Your task to perform on an android device: add a contact in the contacts app Image 0: 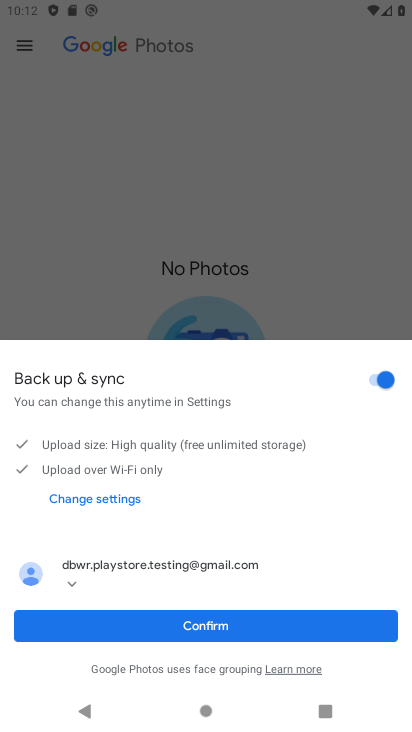
Step 0: press home button
Your task to perform on an android device: add a contact in the contacts app Image 1: 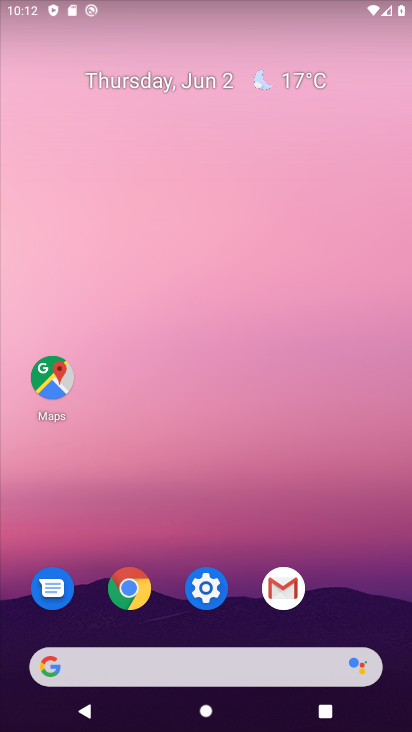
Step 1: drag from (235, 682) to (313, 210)
Your task to perform on an android device: add a contact in the contacts app Image 2: 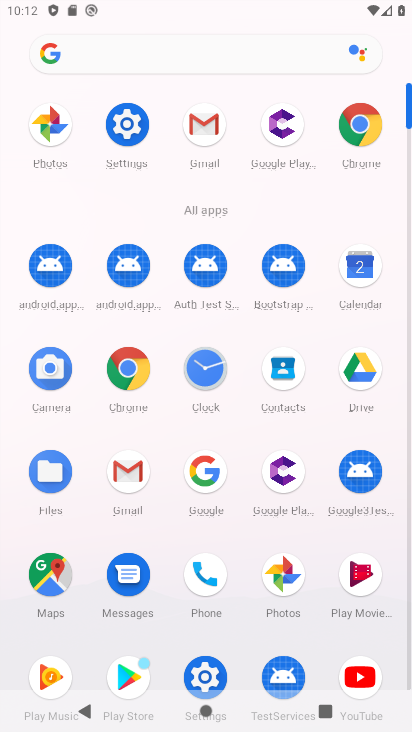
Step 2: click (212, 654)
Your task to perform on an android device: add a contact in the contacts app Image 3: 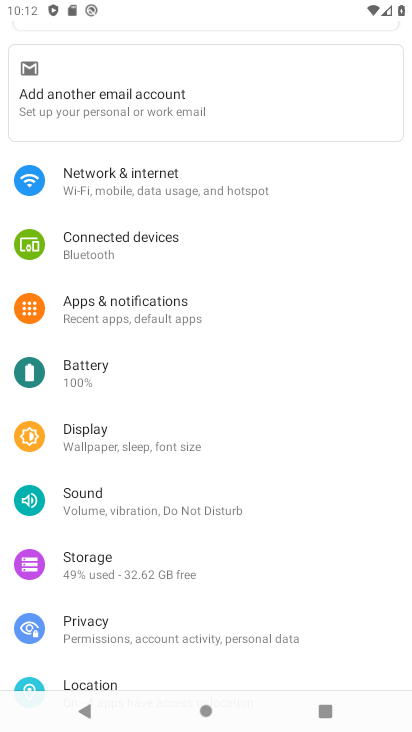
Step 3: press home button
Your task to perform on an android device: add a contact in the contacts app Image 4: 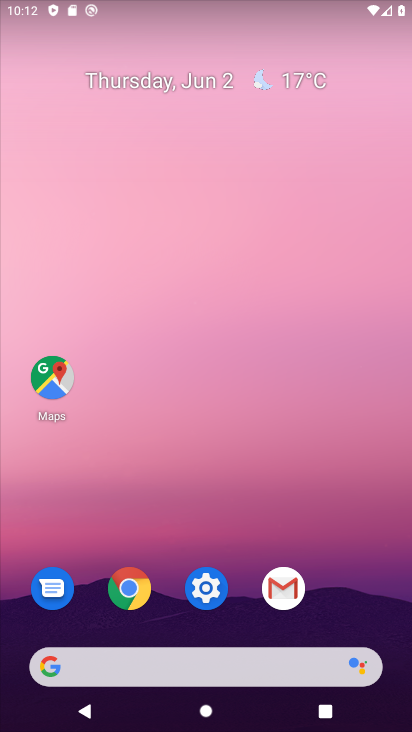
Step 4: drag from (149, 689) to (370, 0)
Your task to perform on an android device: add a contact in the contacts app Image 5: 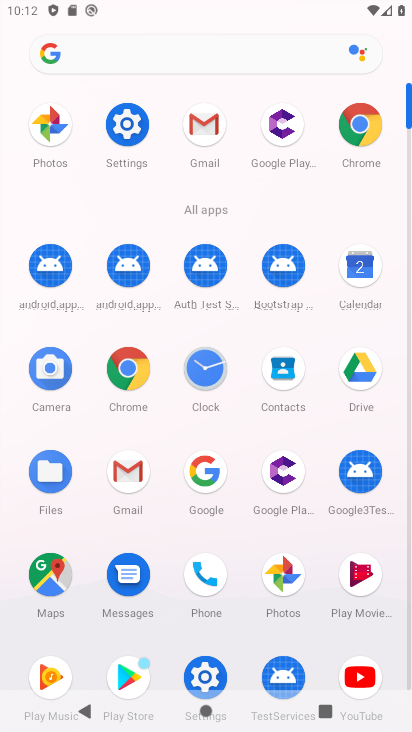
Step 5: click (200, 571)
Your task to perform on an android device: add a contact in the contacts app Image 6: 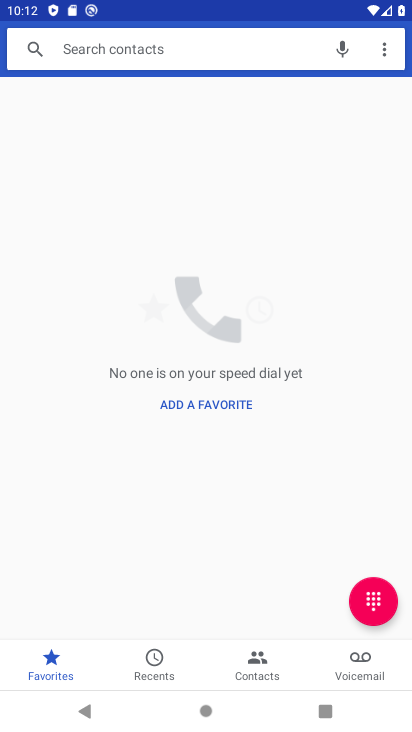
Step 6: click (251, 657)
Your task to perform on an android device: add a contact in the contacts app Image 7: 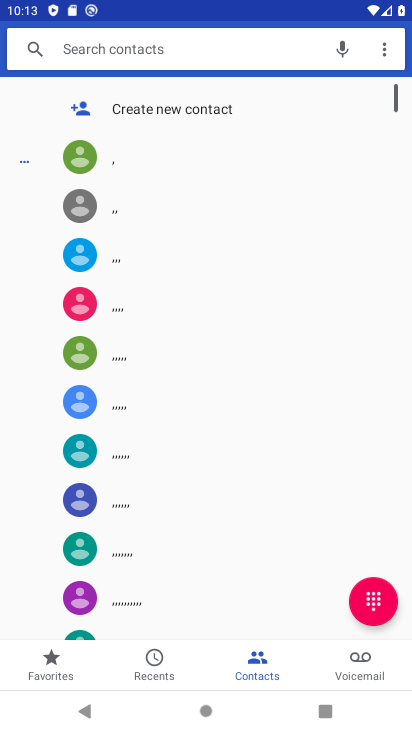
Step 7: click (175, 118)
Your task to perform on an android device: add a contact in the contacts app Image 8: 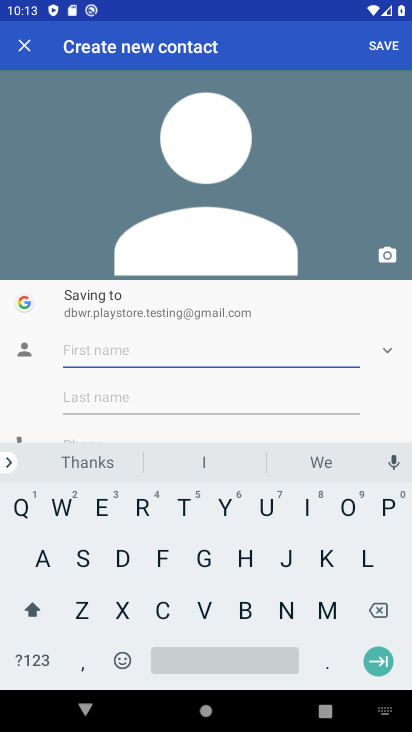
Step 8: drag from (213, 537) to (72, 608)
Your task to perform on an android device: add a contact in the contacts app Image 9: 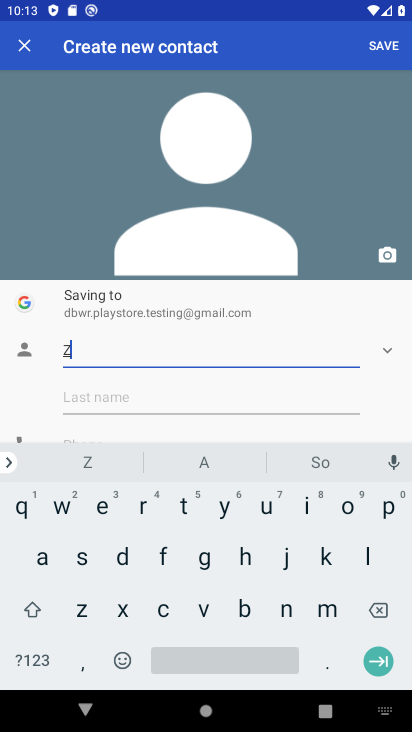
Step 9: click (55, 569)
Your task to perform on an android device: add a contact in the contacts app Image 10: 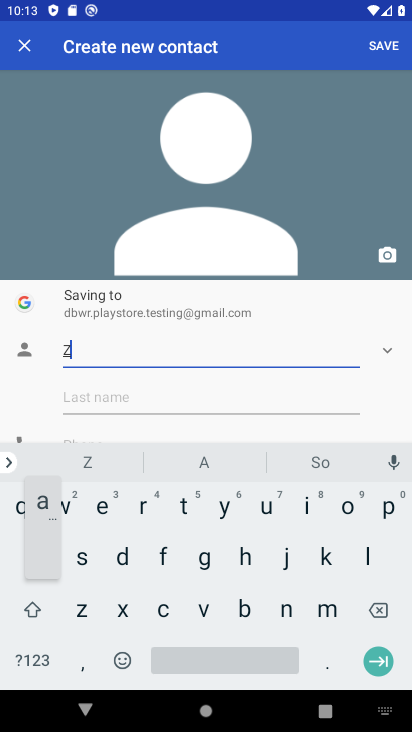
Step 10: click (76, 591)
Your task to perform on an android device: add a contact in the contacts app Image 11: 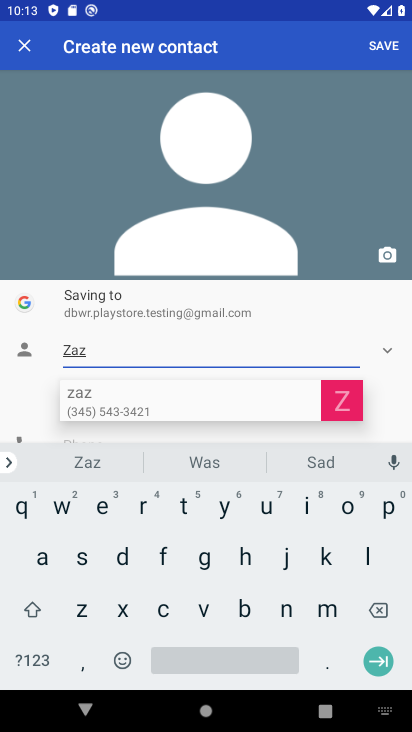
Step 11: drag from (189, 397) to (217, 219)
Your task to perform on an android device: add a contact in the contacts app Image 12: 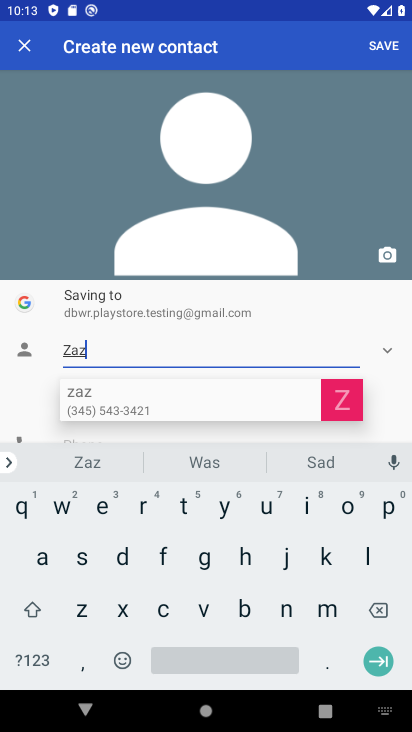
Step 12: click (201, 531)
Your task to perform on an android device: add a contact in the contacts app Image 13: 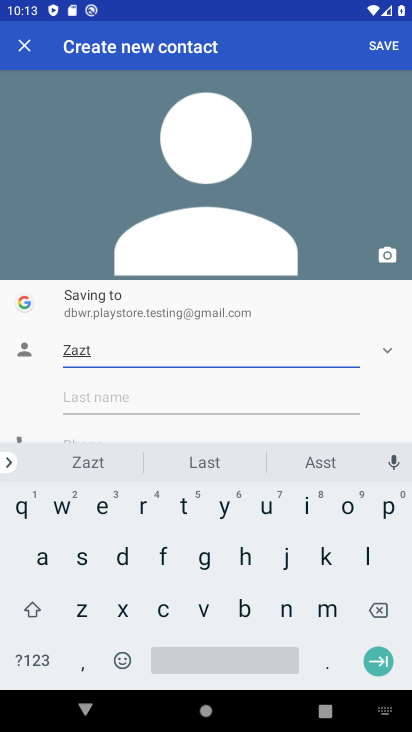
Step 13: click (156, 442)
Your task to perform on an android device: add a contact in the contacts app Image 14: 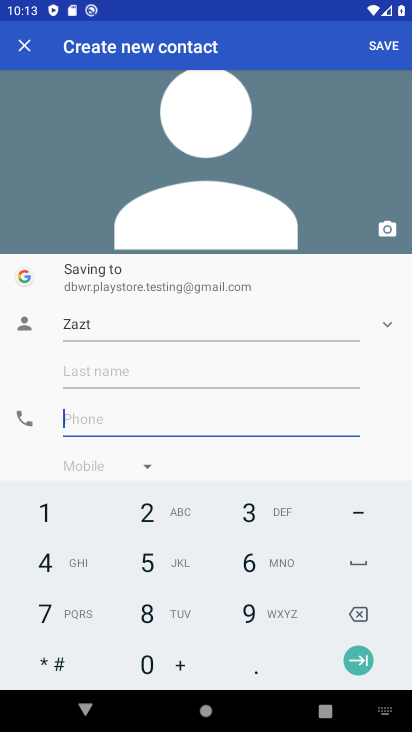
Step 14: click (148, 558)
Your task to perform on an android device: add a contact in the contacts app Image 15: 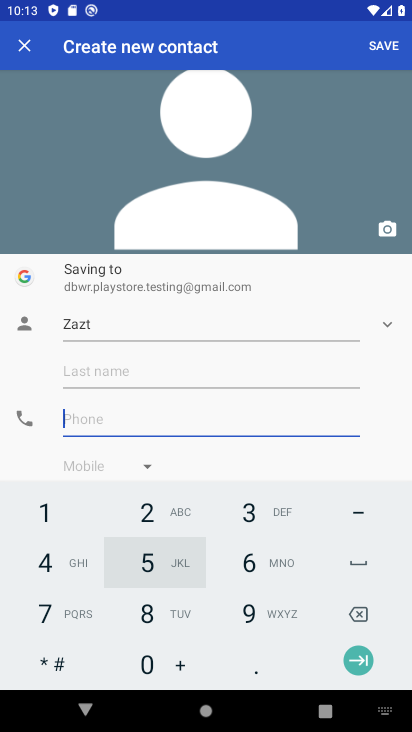
Step 15: click (42, 595)
Your task to perform on an android device: add a contact in the contacts app Image 16: 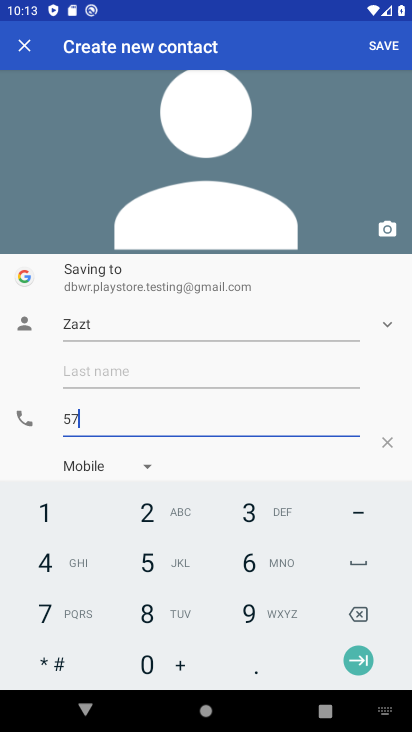
Step 16: click (178, 595)
Your task to perform on an android device: add a contact in the contacts app Image 17: 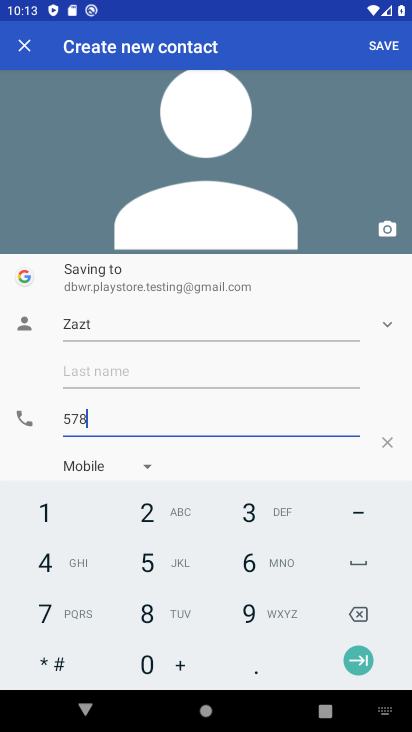
Step 17: click (293, 504)
Your task to perform on an android device: add a contact in the contacts app Image 18: 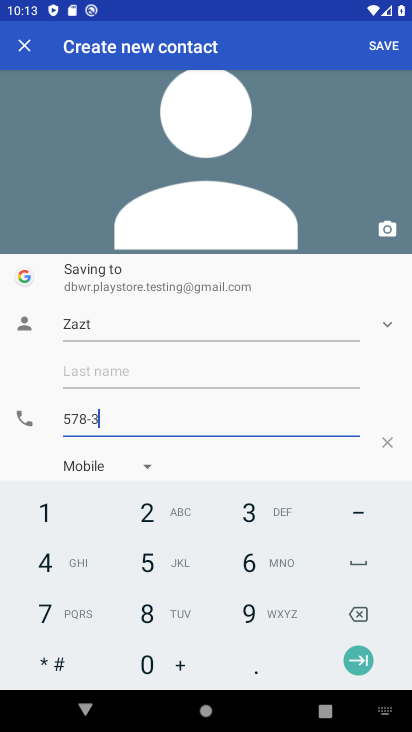
Step 18: click (175, 521)
Your task to perform on an android device: add a contact in the contacts app Image 19: 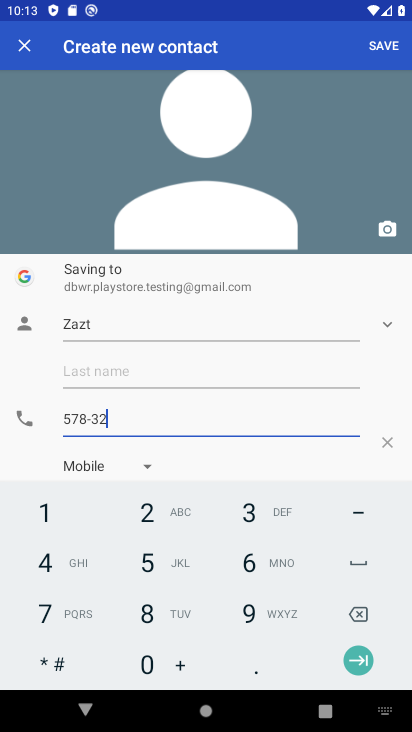
Step 19: click (122, 566)
Your task to perform on an android device: add a contact in the contacts app Image 20: 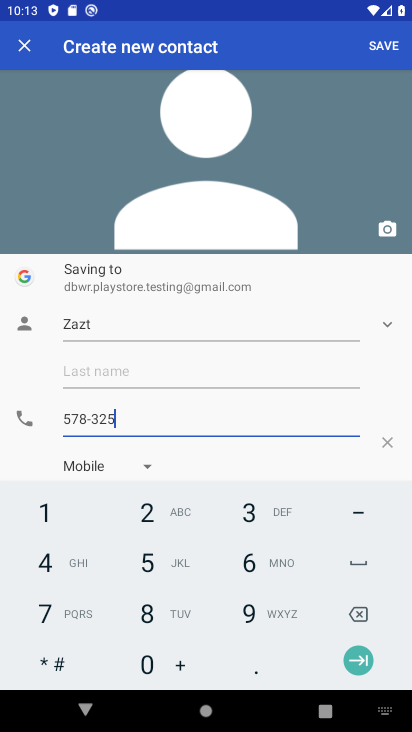
Step 20: click (49, 569)
Your task to perform on an android device: add a contact in the contacts app Image 21: 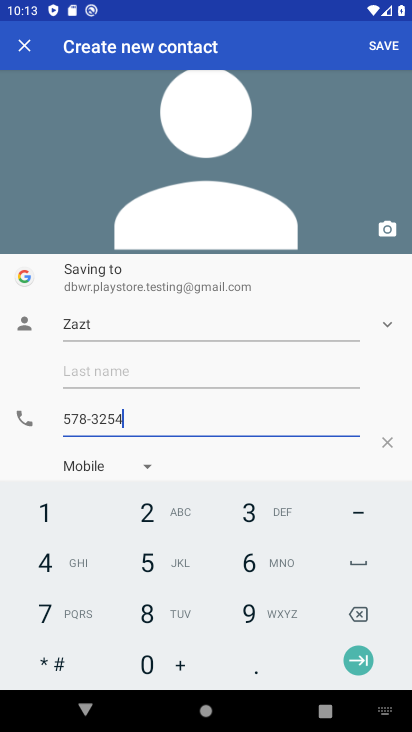
Step 21: click (373, 51)
Your task to perform on an android device: add a contact in the contacts app Image 22: 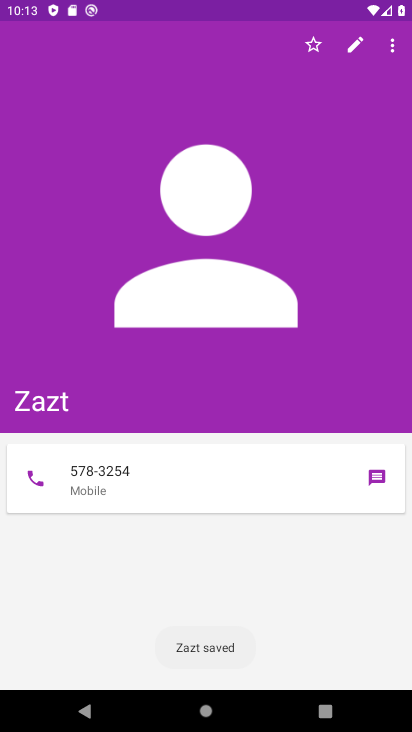
Step 22: task complete